Your task to perform on an android device: change keyboard looks Image 0: 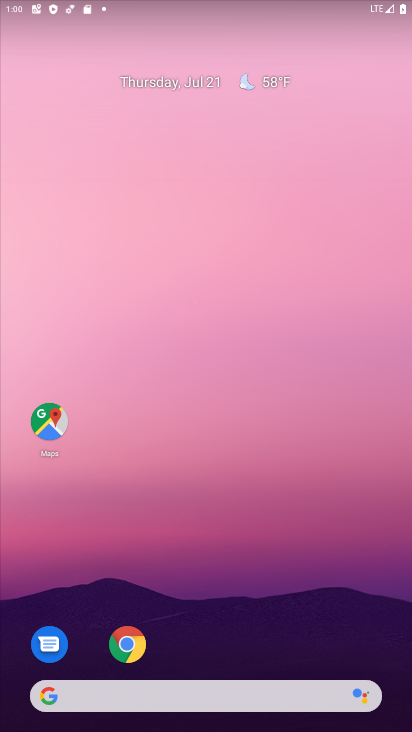
Step 0: drag from (369, 608) to (359, 84)
Your task to perform on an android device: change keyboard looks Image 1: 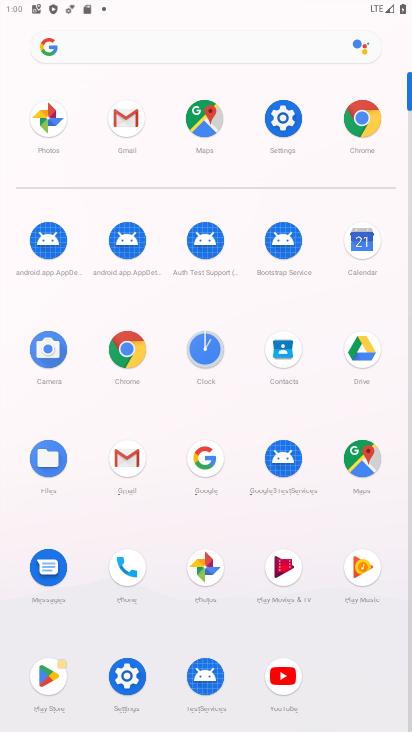
Step 1: click (287, 123)
Your task to perform on an android device: change keyboard looks Image 2: 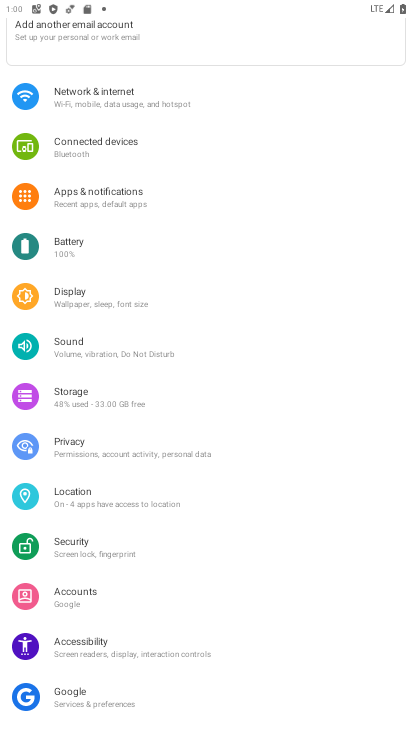
Step 2: drag from (336, 225) to (346, 323)
Your task to perform on an android device: change keyboard looks Image 3: 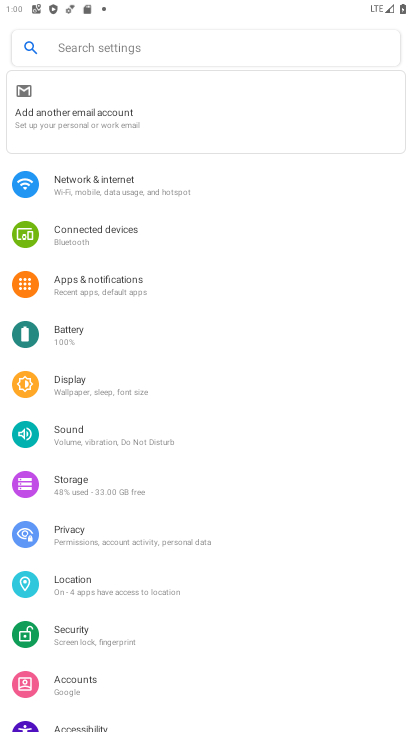
Step 3: drag from (317, 178) to (339, 310)
Your task to perform on an android device: change keyboard looks Image 4: 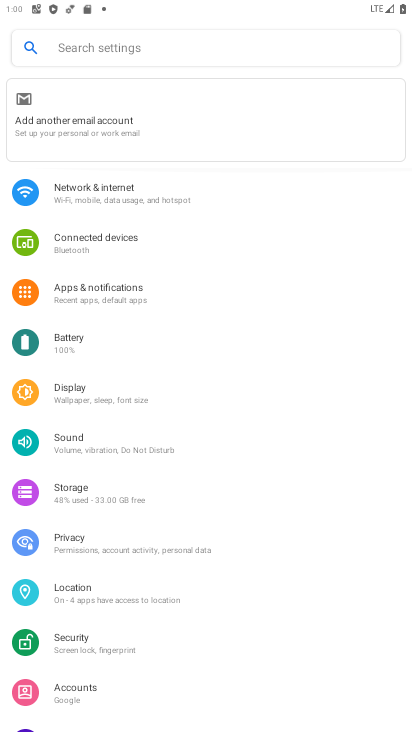
Step 4: drag from (333, 349) to (332, 272)
Your task to perform on an android device: change keyboard looks Image 5: 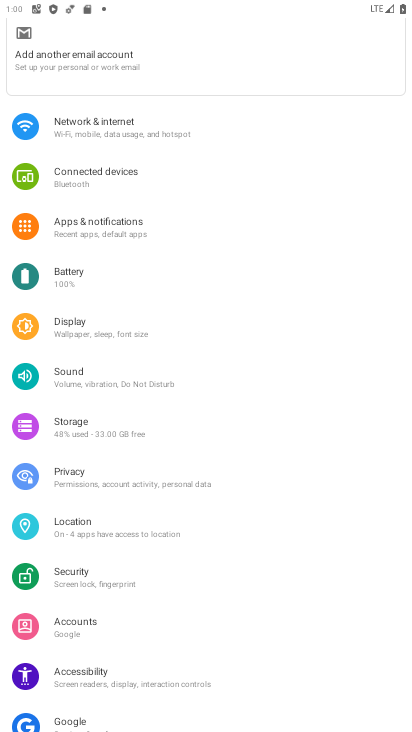
Step 5: drag from (331, 376) to (330, 290)
Your task to perform on an android device: change keyboard looks Image 6: 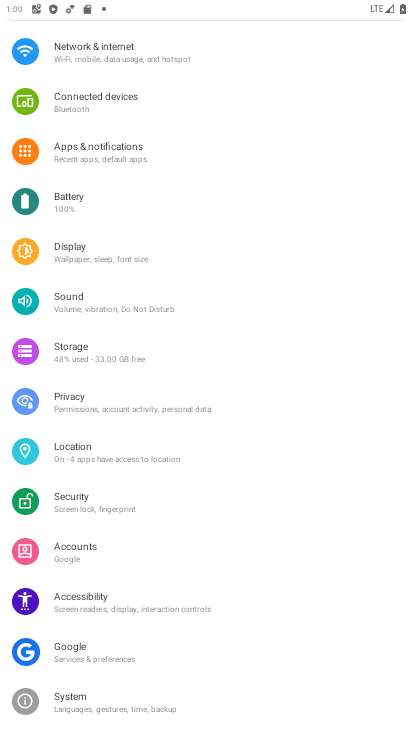
Step 6: drag from (331, 394) to (333, 268)
Your task to perform on an android device: change keyboard looks Image 7: 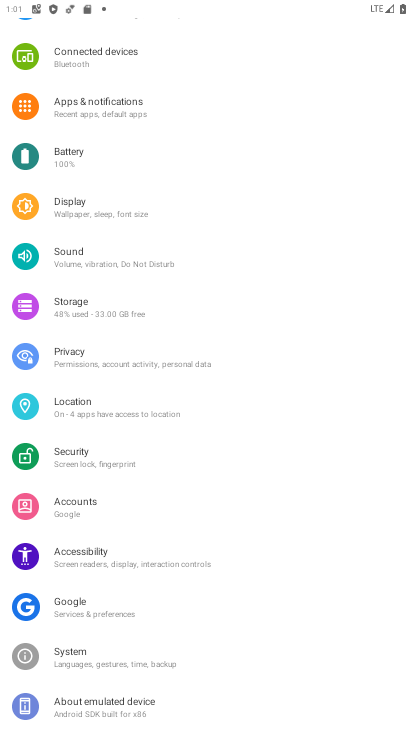
Step 7: click (196, 659)
Your task to perform on an android device: change keyboard looks Image 8: 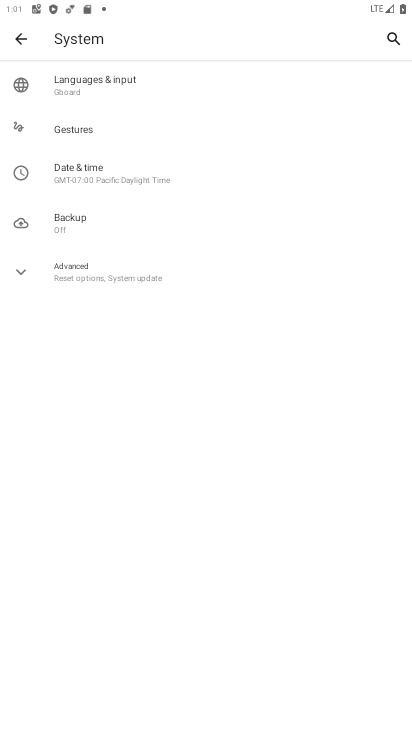
Step 8: click (89, 97)
Your task to perform on an android device: change keyboard looks Image 9: 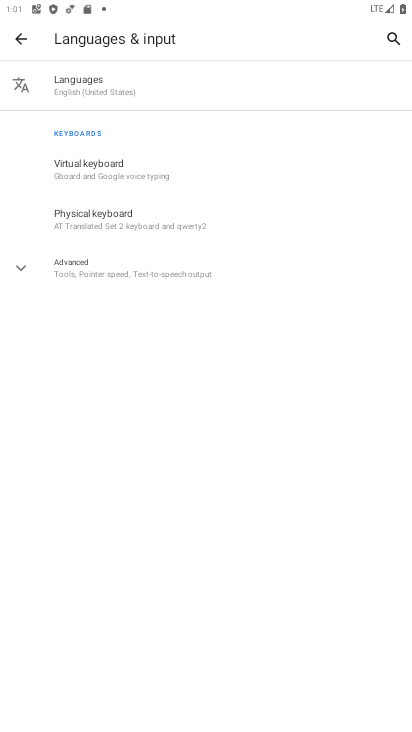
Step 9: click (187, 181)
Your task to perform on an android device: change keyboard looks Image 10: 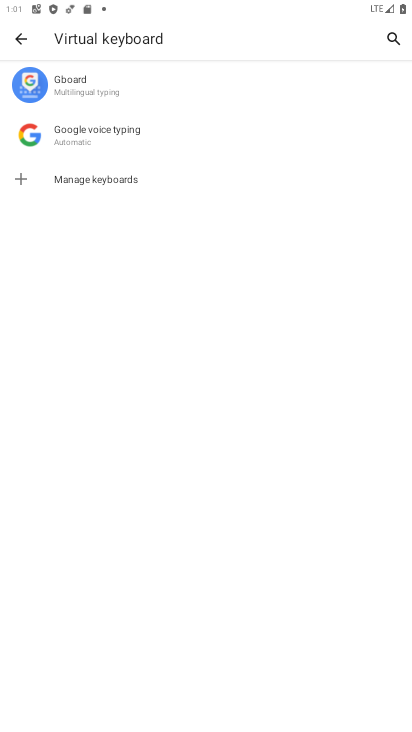
Step 10: click (135, 99)
Your task to perform on an android device: change keyboard looks Image 11: 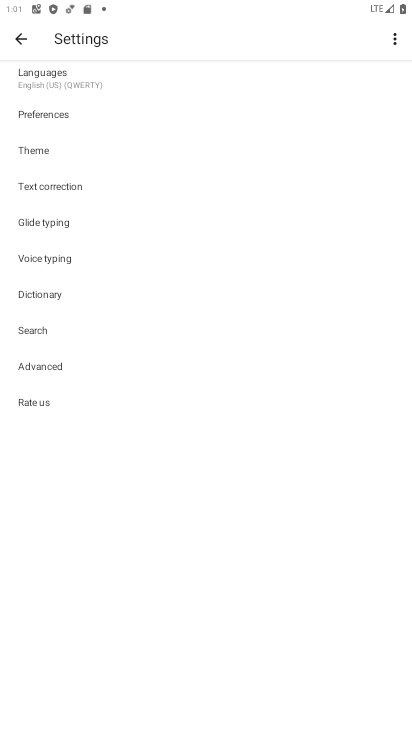
Step 11: click (59, 155)
Your task to perform on an android device: change keyboard looks Image 12: 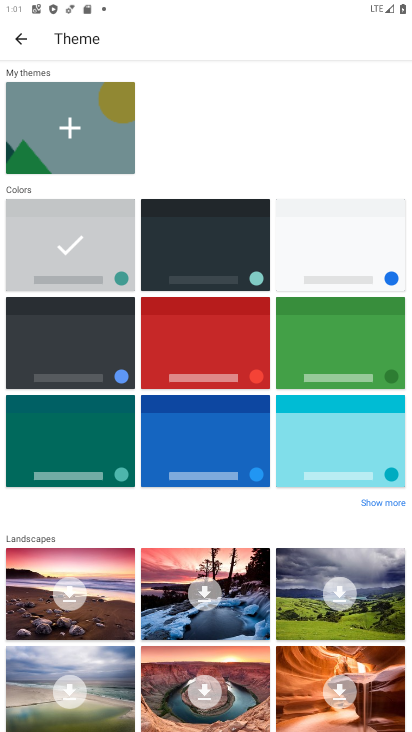
Step 12: click (229, 351)
Your task to perform on an android device: change keyboard looks Image 13: 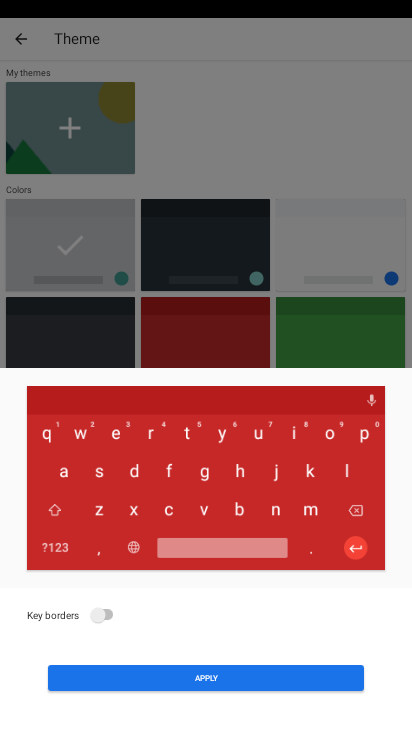
Step 13: click (238, 680)
Your task to perform on an android device: change keyboard looks Image 14: 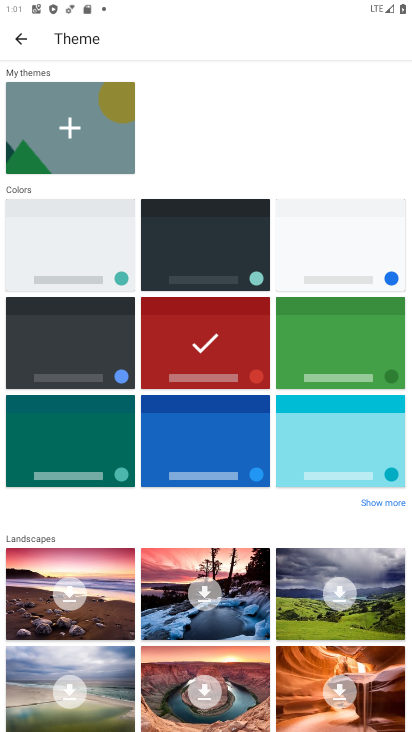
Step 14: task complete